Your task to perform on an android device: find snoozed emails in the gmail app Image 0: 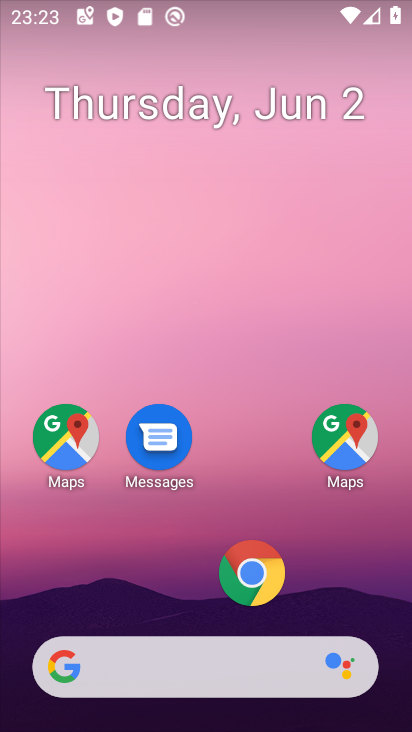
Step 0: drag from (129, 603) to (183, 282)
Your task to perform on an android device: find snoozed emails in the gmail app Image 1: 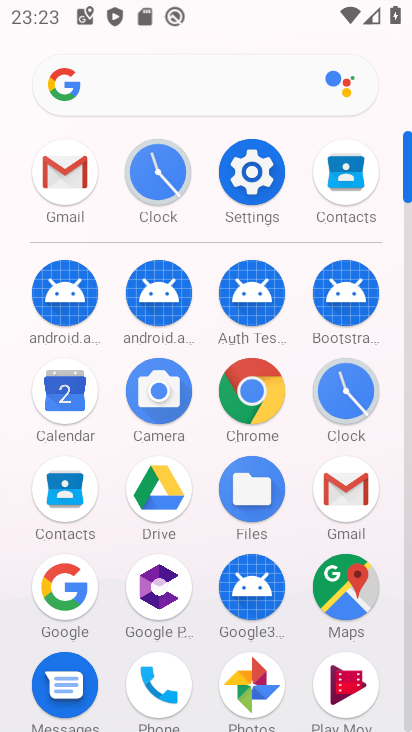
Step 1: click (73, 169)
Your task to perform on an android device: find snoozed emails in the gmail app Image 2: 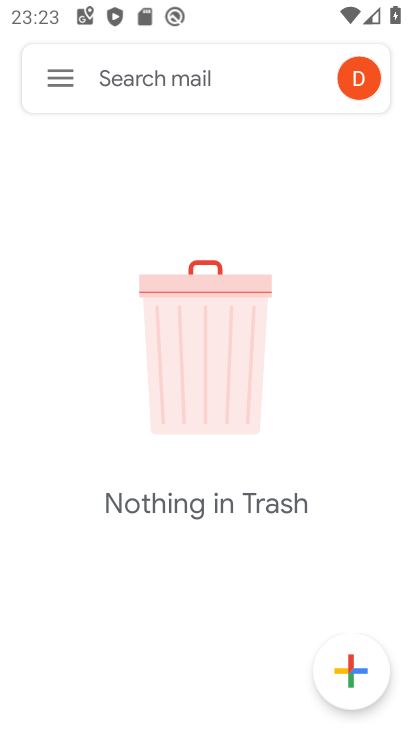
Step 2: click (53, 70)
Your task to perform on an android device: find snoozed emails in the gmail app Image 3: 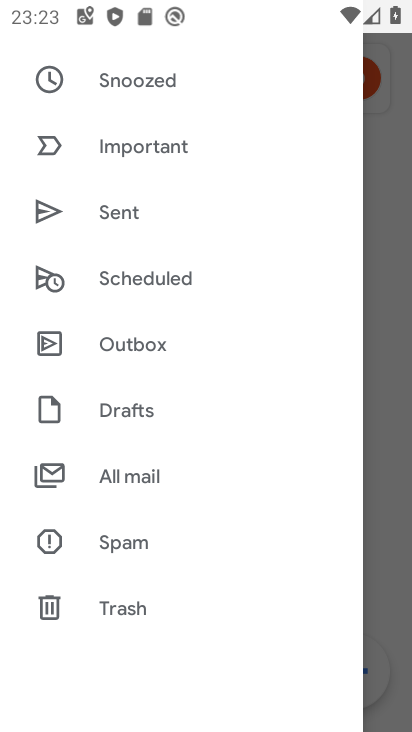
Step 3: click (144, 83)
Your task to perform on an android device: find snoozed emails in the gmail app Image 4: 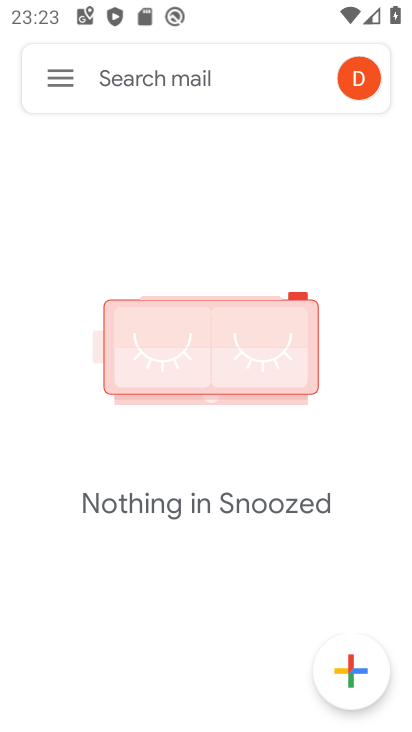
Step 4: task complete